Your task to perform on an android device: set default search engine in the chrome app Image 0: 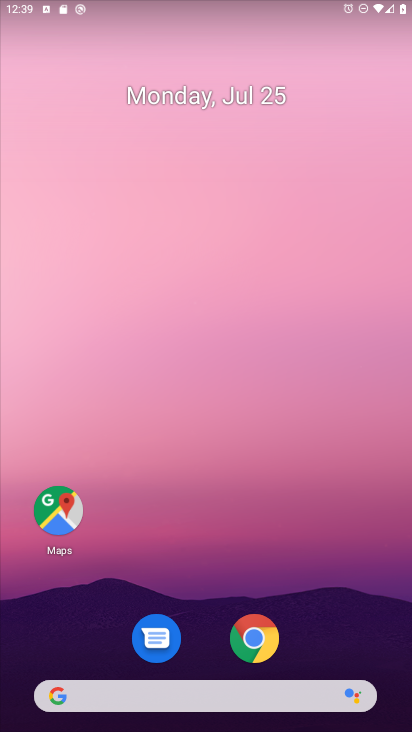
Step 0: click (256, 639)
Your task to perform on an android device: set default search engine in the chrome app Image 1: 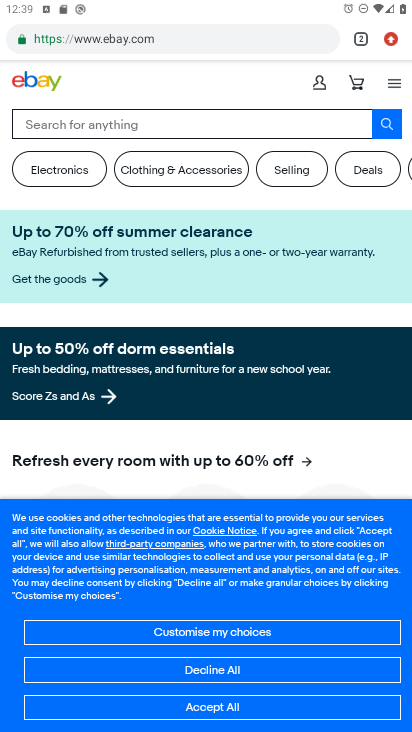
Step 1: click (396, 44)
Your task to perform on an android device: set default search engine in the chrome app Image 2: 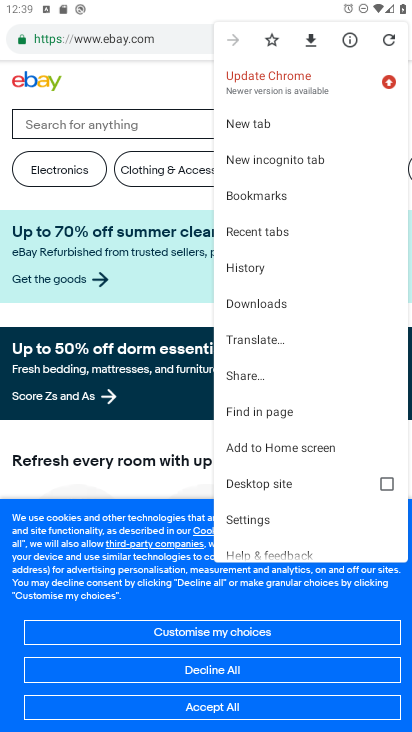
Step 2: click (261, 525)
Your task to perform on an android device: set default search engine in the chrome app Image 3: 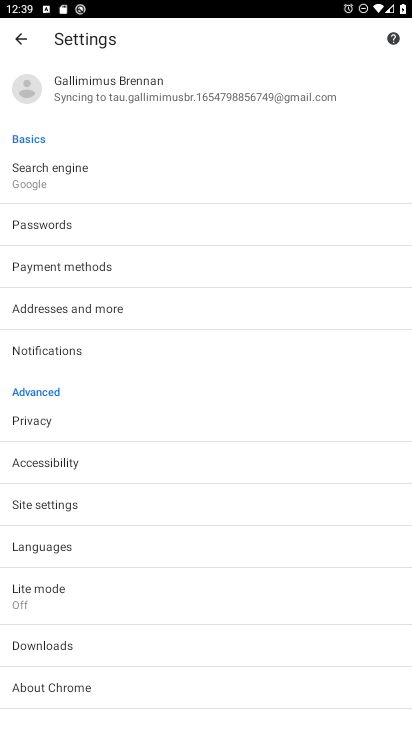
Step 3: click (93, 195)
Your task to perform on an android device: set default search engine in the chrome app Image 4: 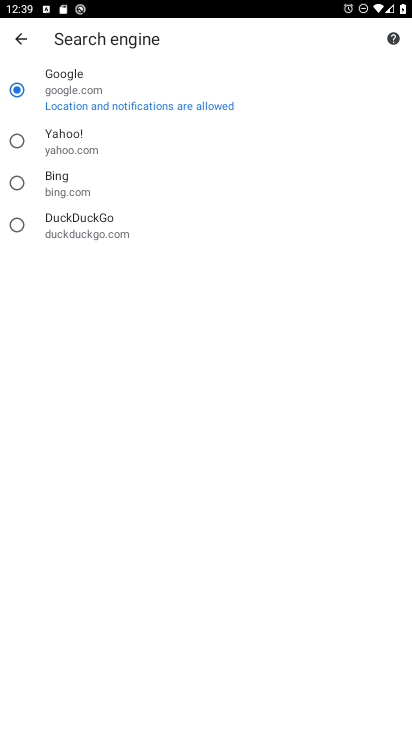
Step 4: click (93, 195)
Your task to perform on an android device: set default search engine in the chrome app Image 5: 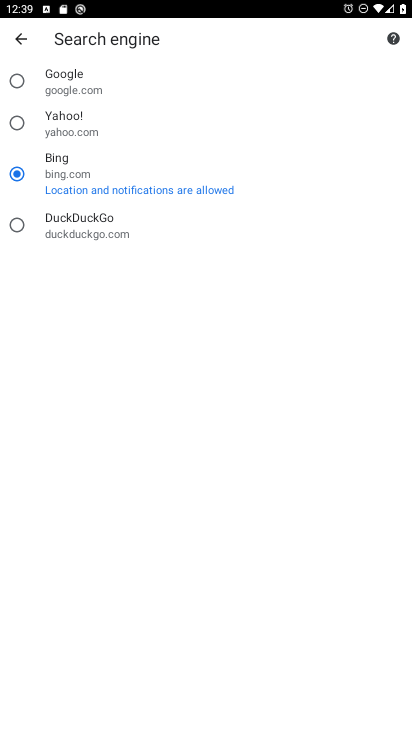
Step 5: task complete